Your task to perform on an android device: Open CNN.com Image 0: 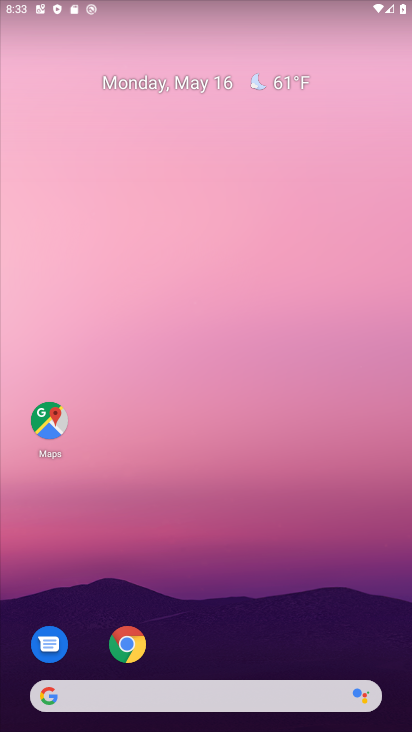
Step 0: drag from (196, 618) to (293, 112)
Your task to perform on an android device: Open CNN.com Image 1: 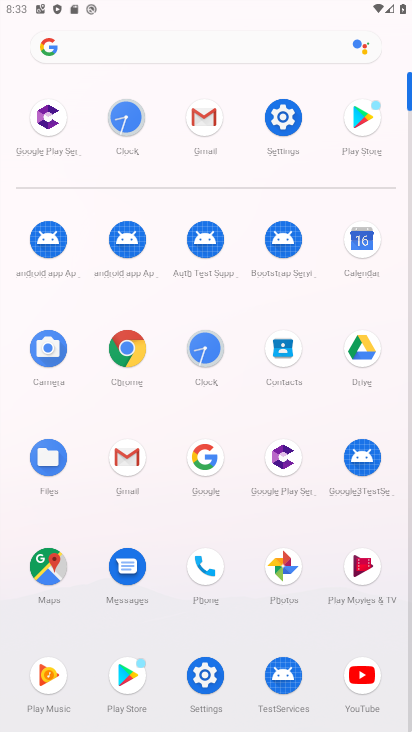
Step 1: click (202, 452)
Your task to perform on an android device: Open CNN.com Image 2: 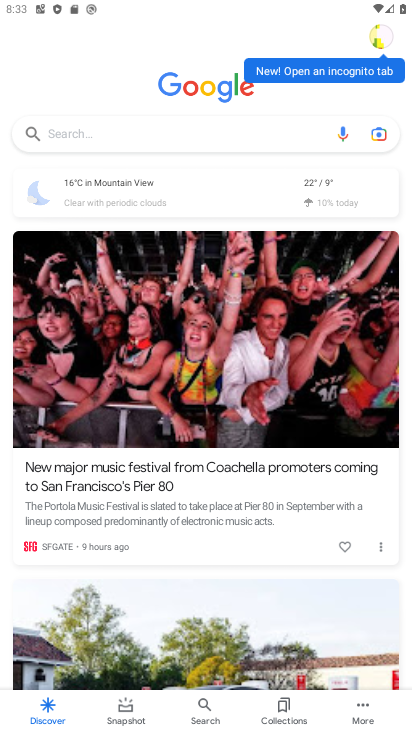
Step 2: click (152, 125)
Your task to perform on an android device: Open CNN.com Image 3: 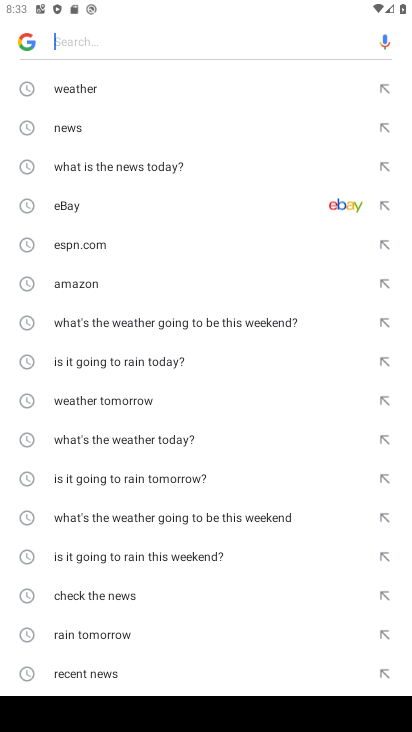
Step 3: type "cnn.com"
Your task to perform on an android device: Open CNN.com Image 4: 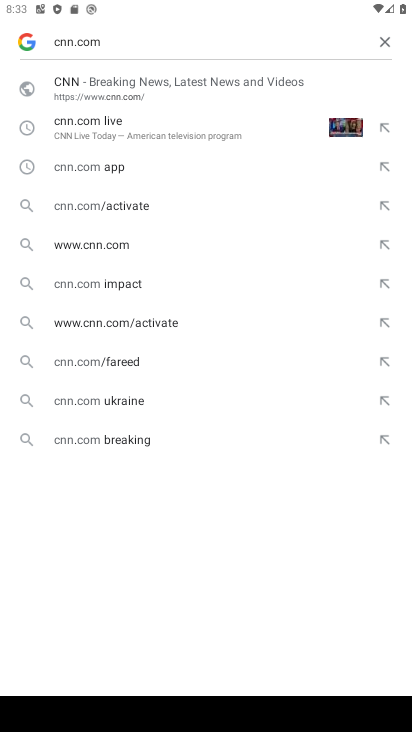
Step 4: click (112, 87)
Your task to perform on an android device: Open CNN.com Image 5: 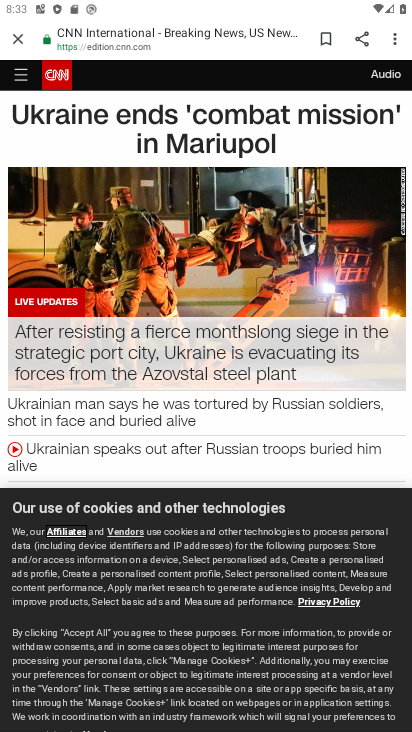
Step 5: task complete